Your task to perform on an android device: open chrome privacy settings Image 0: 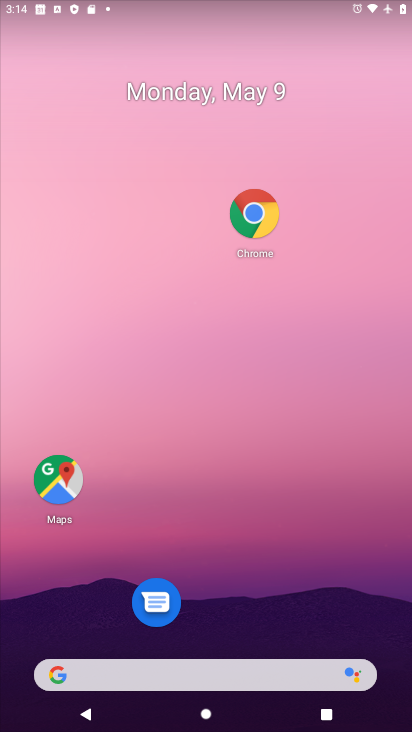
Step 0: click (249, 216)
Your task to perform on an android device: open chrome privacy settings Image 1: 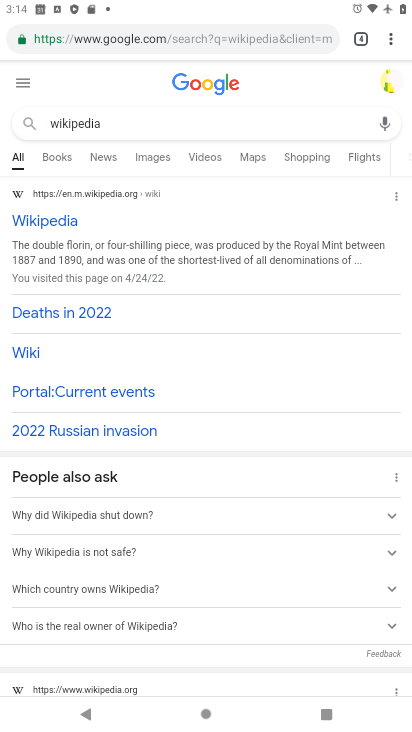
Step 1: click (382, 48)
Your task to perform on an android device: open chrome privacy settings Image 2: 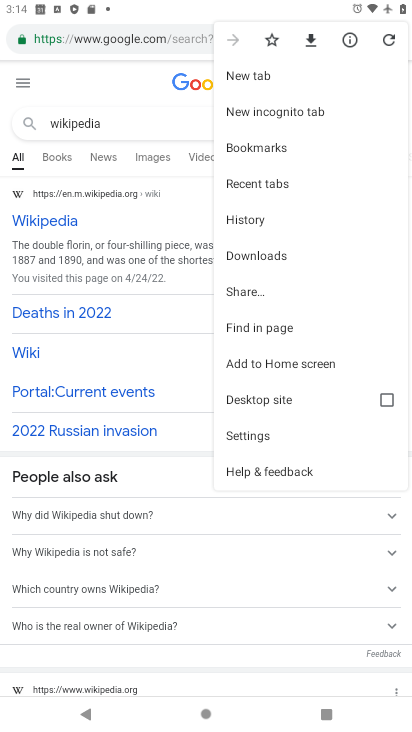
Step 2: click (257, 428)
Your task to perform on an android device: open chrome privacy settings Image 3: 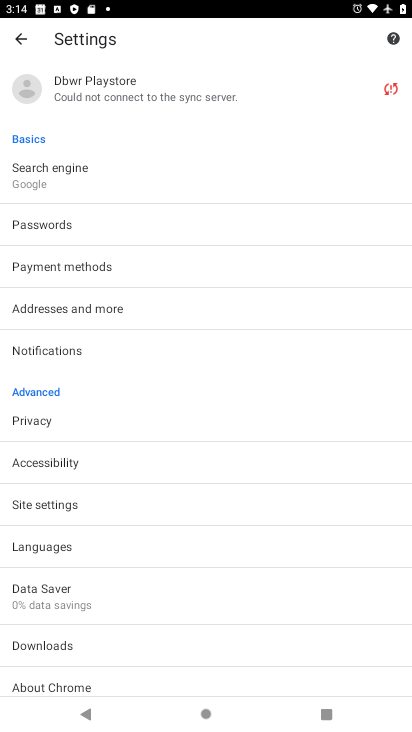
Step 3: click (235, 429)
Your task to perform on an android device: open chrome privacy settings Image 4: 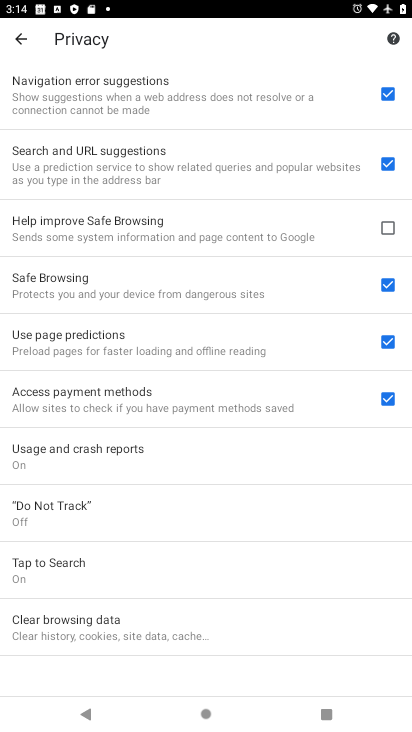
Step 4: task complete